Your task to perform on an android device: set default search engine in the chrome app Image 0: 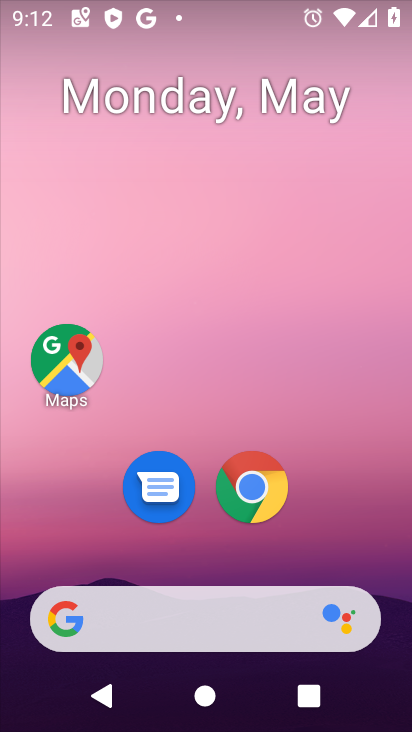
Step 0: click (261, 486)
Your task to perform on an android device: set default search engine in the chrome app Image 1: 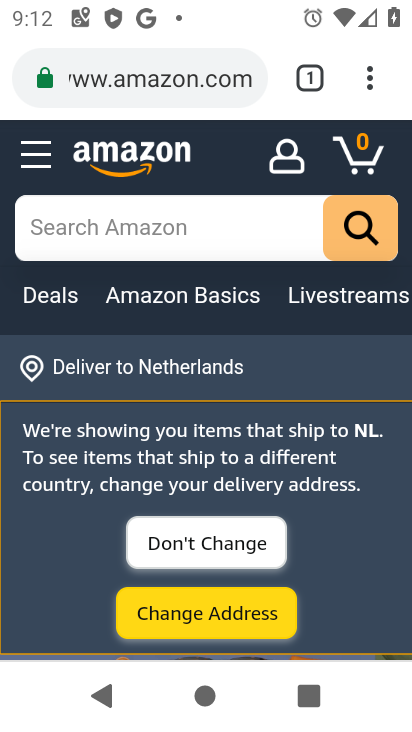
Step 1: click (377, 83)
Your task to perform on an android device: set default search engine in the chrome app Image 2: 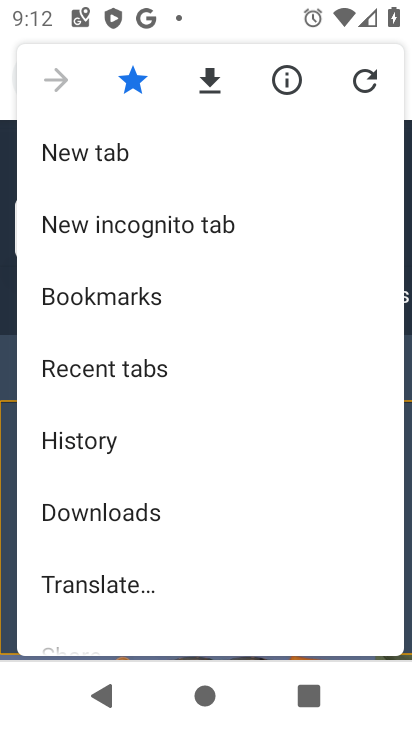
Step 2: drag from (99, 605) to (185, 133)
Your task to perform on an android device: set default search engine in the chrome app Image 3: 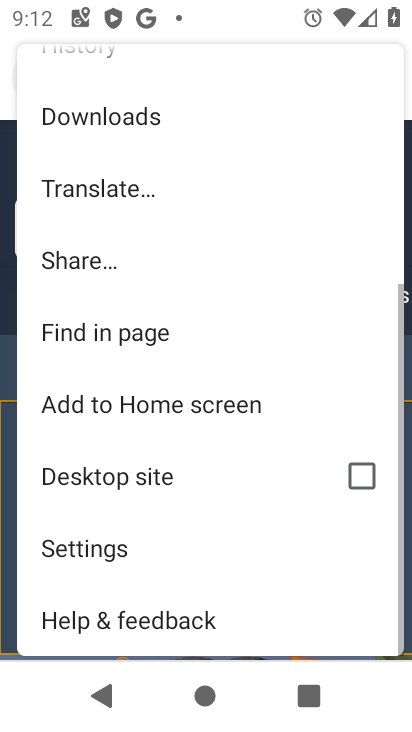
Step 3: click (95, 561)
Your task to perform on an android device: set default search engine in the chrome app Image 4: 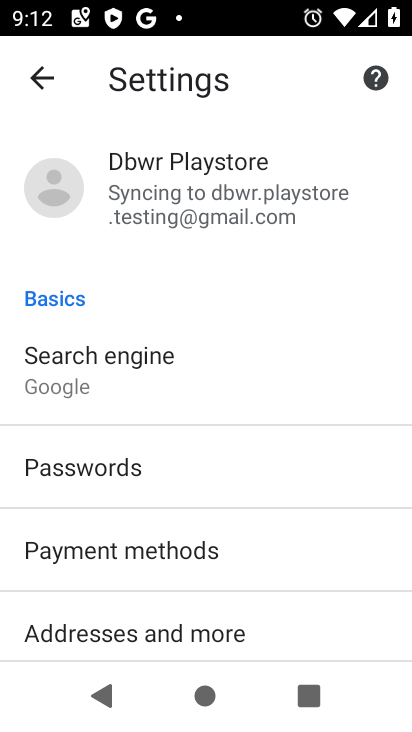
Step 4: click (82, 370)
Your task to perform on an android device: set default search engine in the chrome app Image 5: 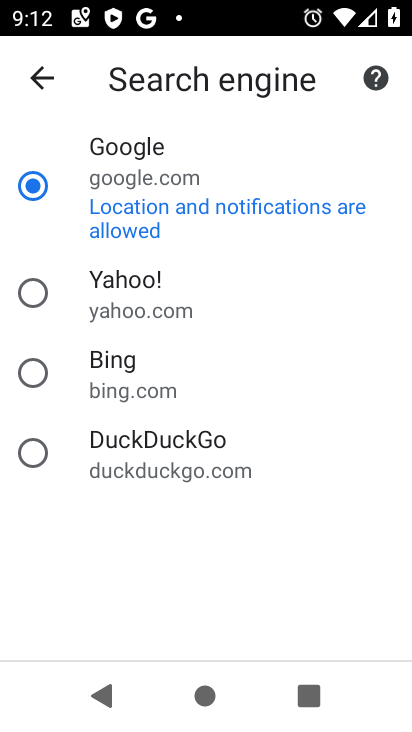
Step 5: click (82, 370)
Your task to perform on an android device: set default search engine in the chrome app Image 6: 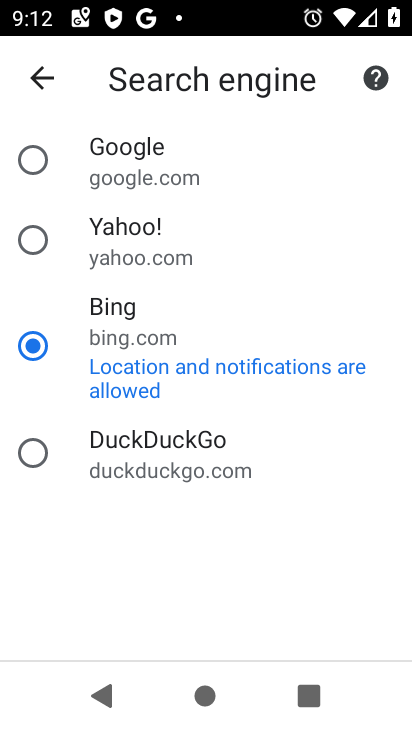
Step 6: task complete